Your task to perform on an android device: delete a single message in the gmail app Image 0: 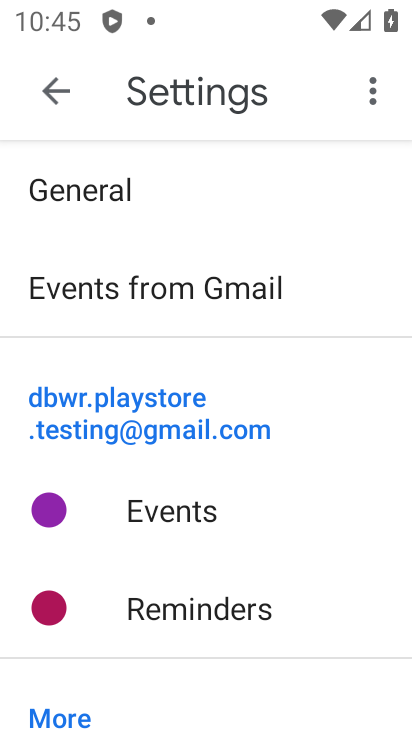
Step 0: press home button
Your task to perform on an android device: delete a single message in the gmail app Image 1: 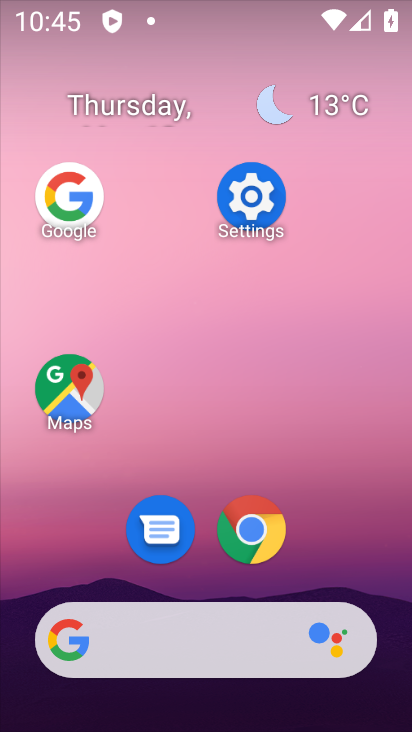
Step 1: drag from (393, 560) to (392, 69)
Your task to perform on an android device: delete a single message in the gmail app Image 2: 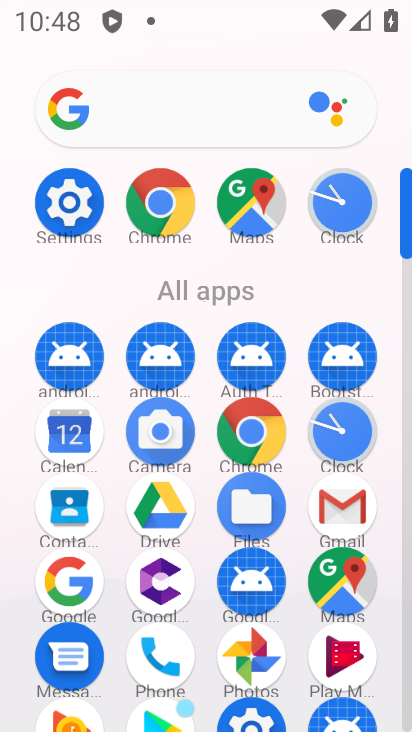
Step 2: click (374, 504)
Your task to perform on an android device: delete a single message in the gmail app Image 3: 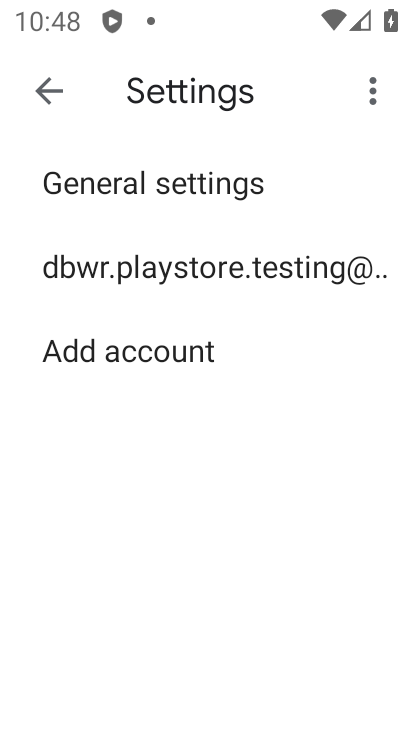
Step 3: click (47, 81)
Your task to perform on an android device: delete a single message in the gmail app Image 4: 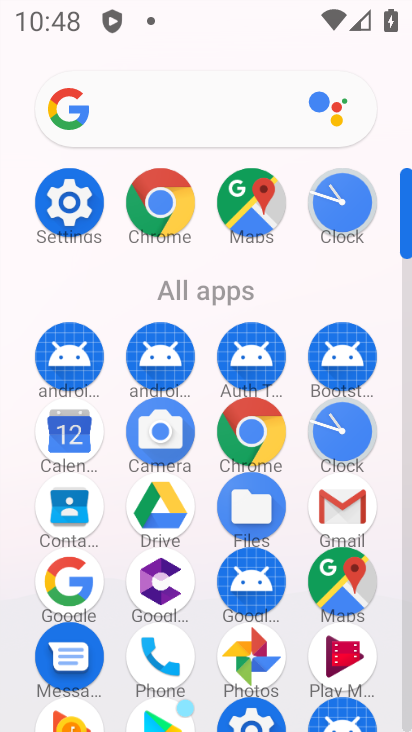
Step 4: click (352, 503)
Your task to perform on an android device: delete a single message in the gmail app Image 5: 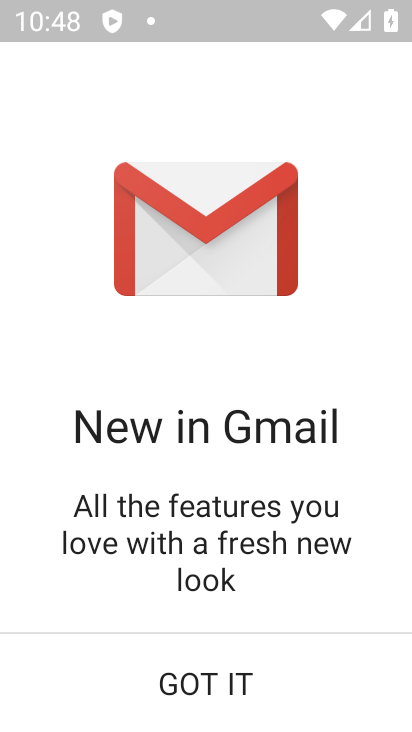
Step 5: click (123, 718)
Your task to perform on an android device: delete a single message in the gmail app Image 6: 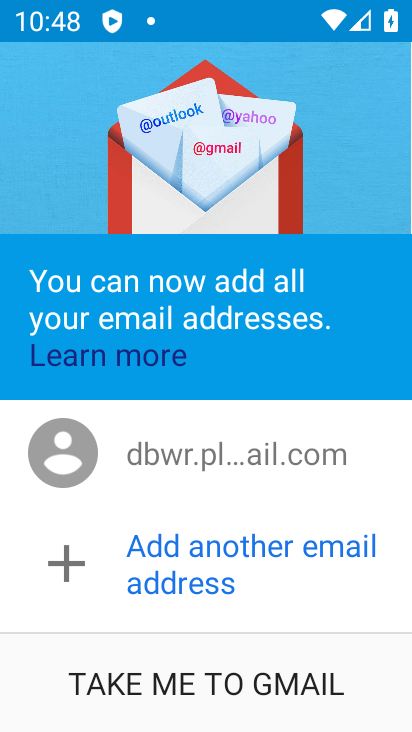
Step 6: click (117, 682)
Your task to perform on an android device: delete a single message in the gmail app Image 7: 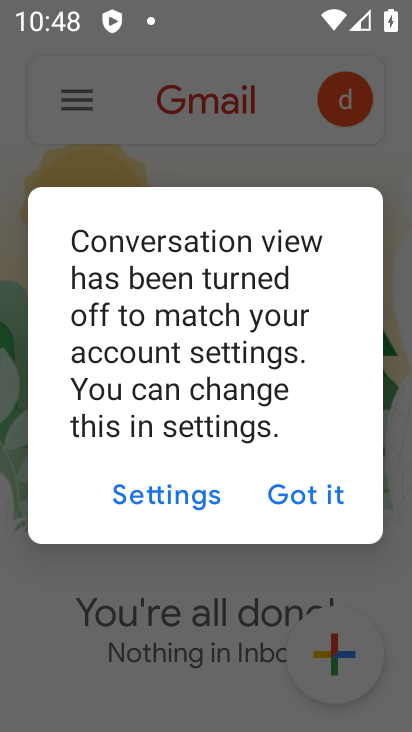
Step 7: click (301, 485)
Your task to perform on an android device: delete a single message in the gmail app Image 8: 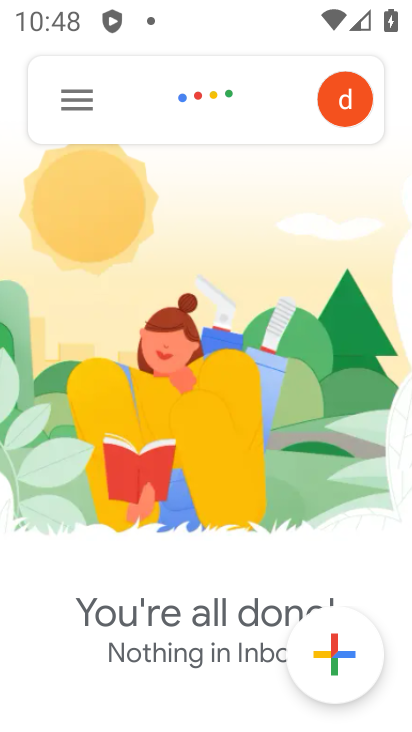
Step 8: click (90, 100)
Your task to perform on an android device: delete a single message in the gmail app Image 9: 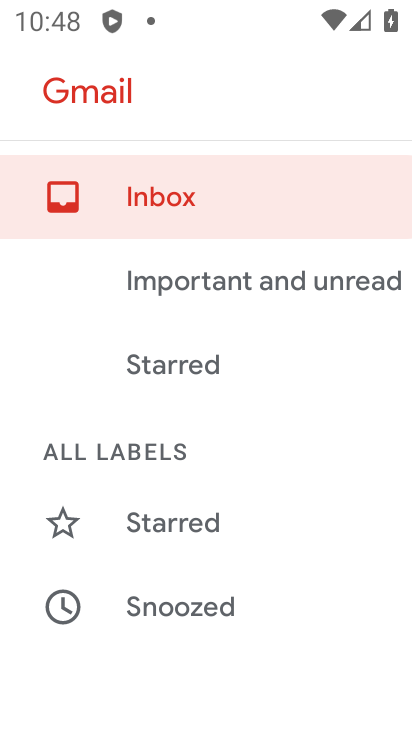
Step 9: drag from (100, 538) to (166, 251)
Your task to perform on an android device: delete a single message in the gmail app Image 10: 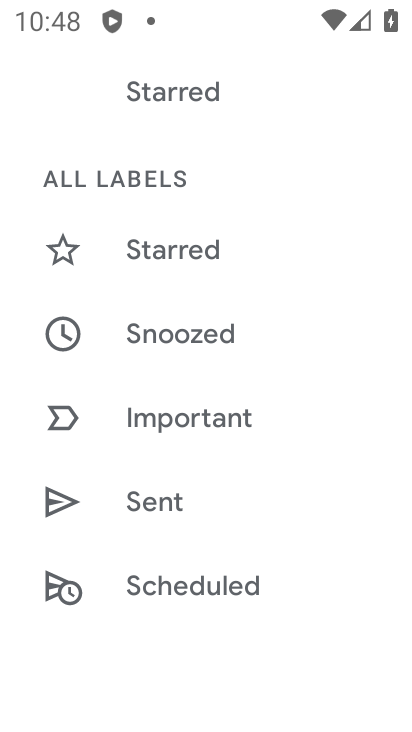
Step 10: drag from (165, 275) to (114, 499)
Your task to perform on an android device: delete a single message in the gmail app Image 11: 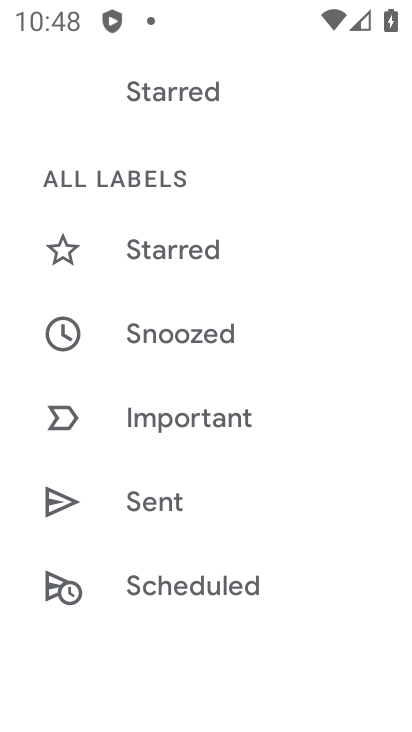
Step 11: drag from (156, 550) to (267, 184)
Your task to perform on an android device: delete a single message in the gmail app Image 12: 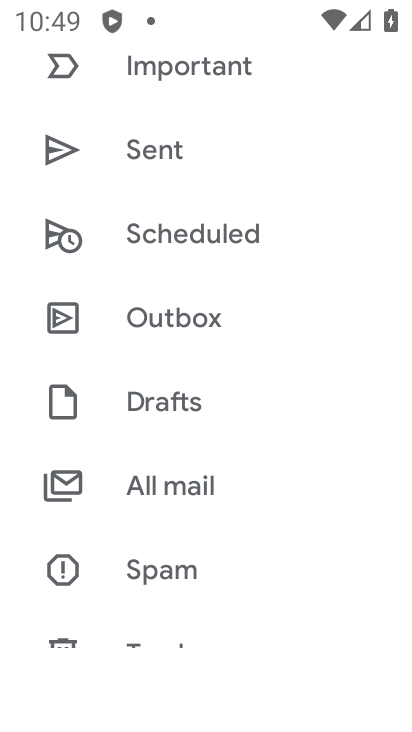
Step 12: click (160, 490)
Your task to perform on an android device: delete a single message in the gmail app Image 13: 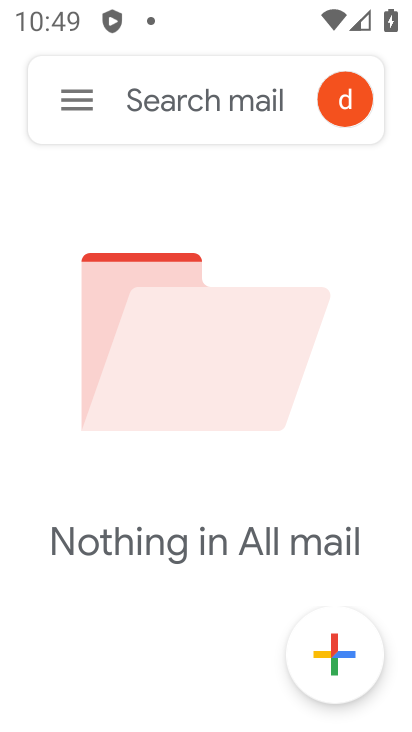
Step 13: task complete